Your task to perform on an android device: uninstall "Google Chat" Image 0: 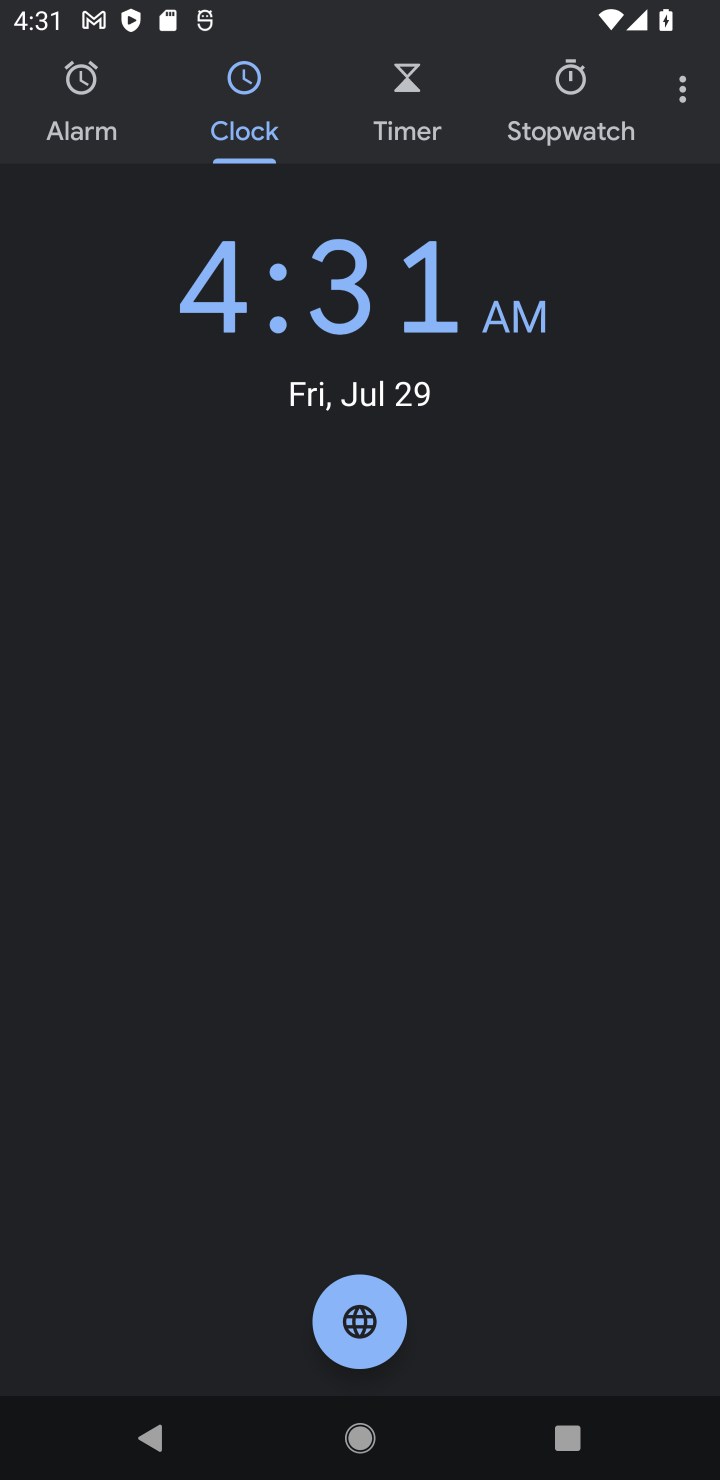
Step 0: press home button
Your task to perform on an android device: uninstall "Google Chat" Image 1: 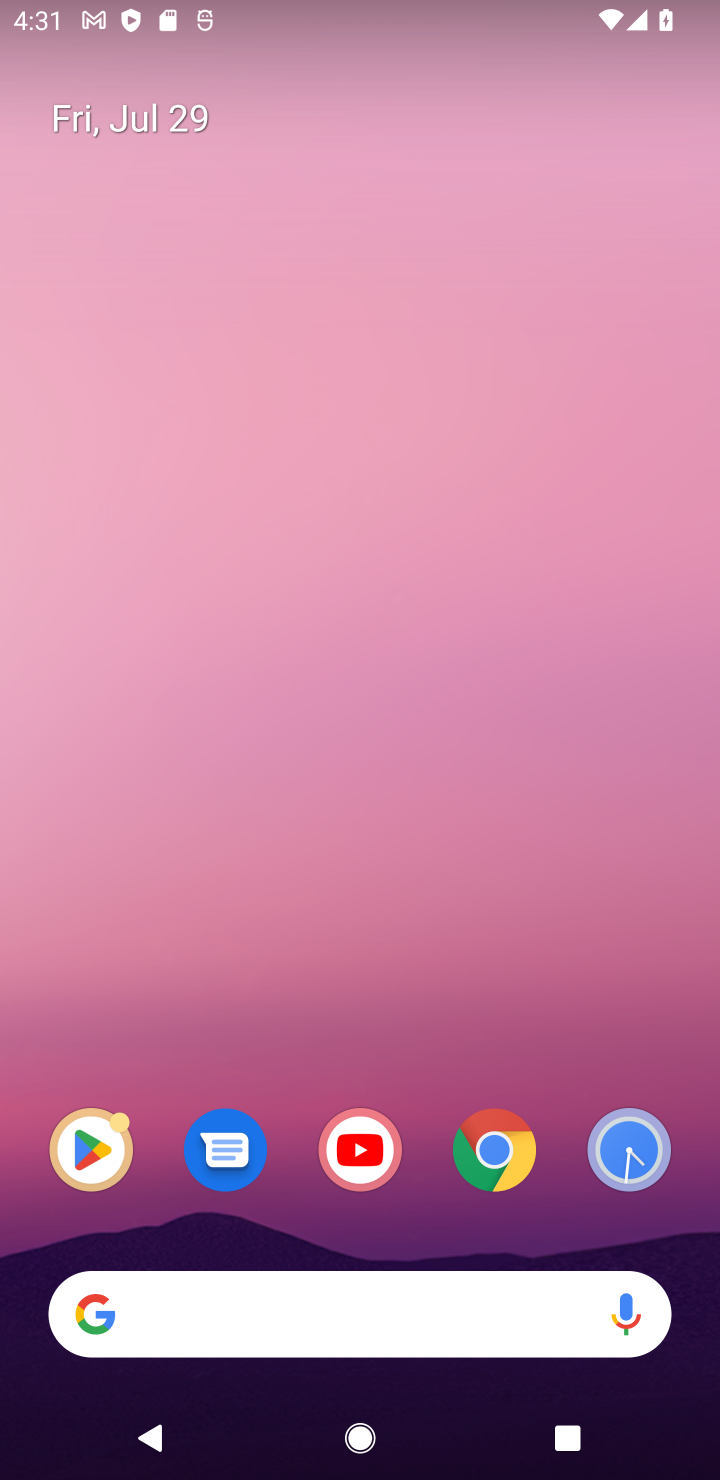
Step 1: drag from (406, 1466) to (406, 534)
Your task to perform on an android device: uninstall "Google Chat" Image 2: 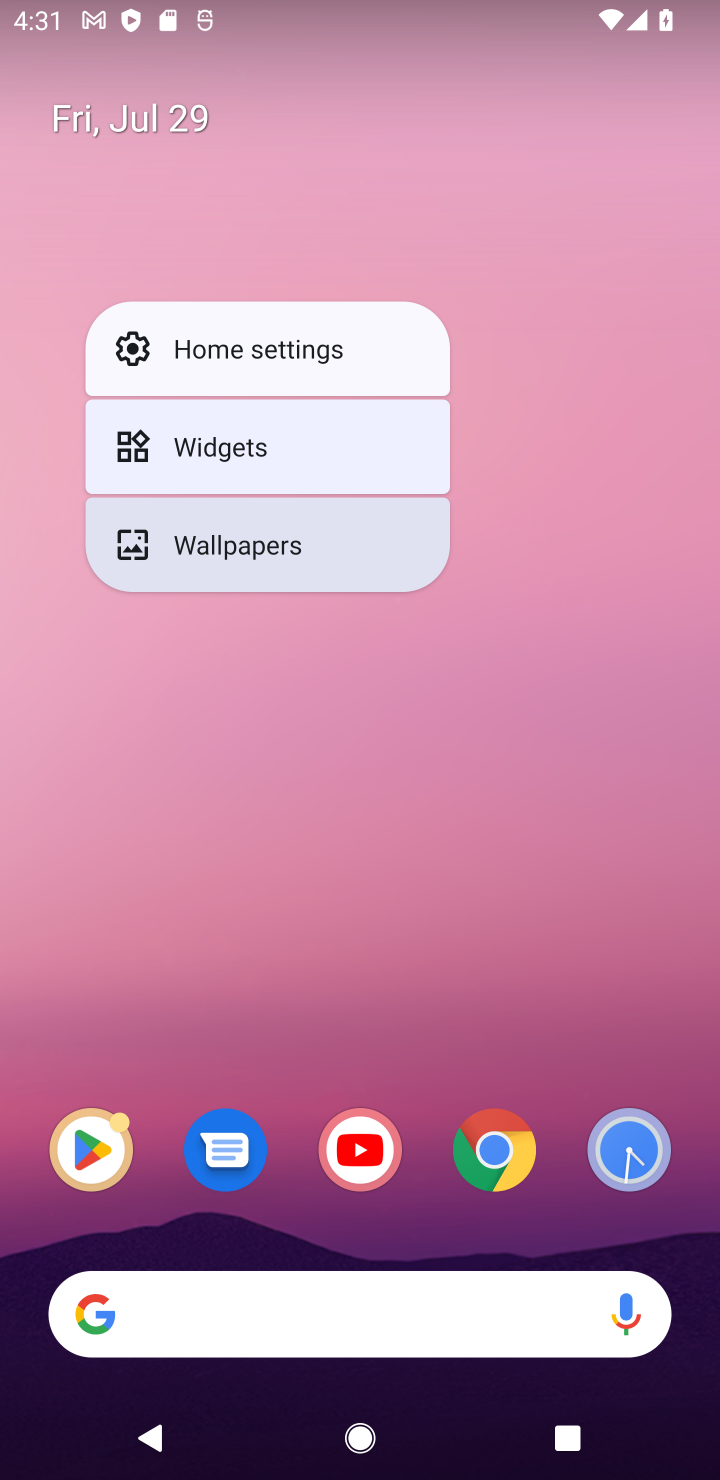
Step 2: click (364, 780)
Your task to perform on an android device: uninstall "Google Chat" Image 3: 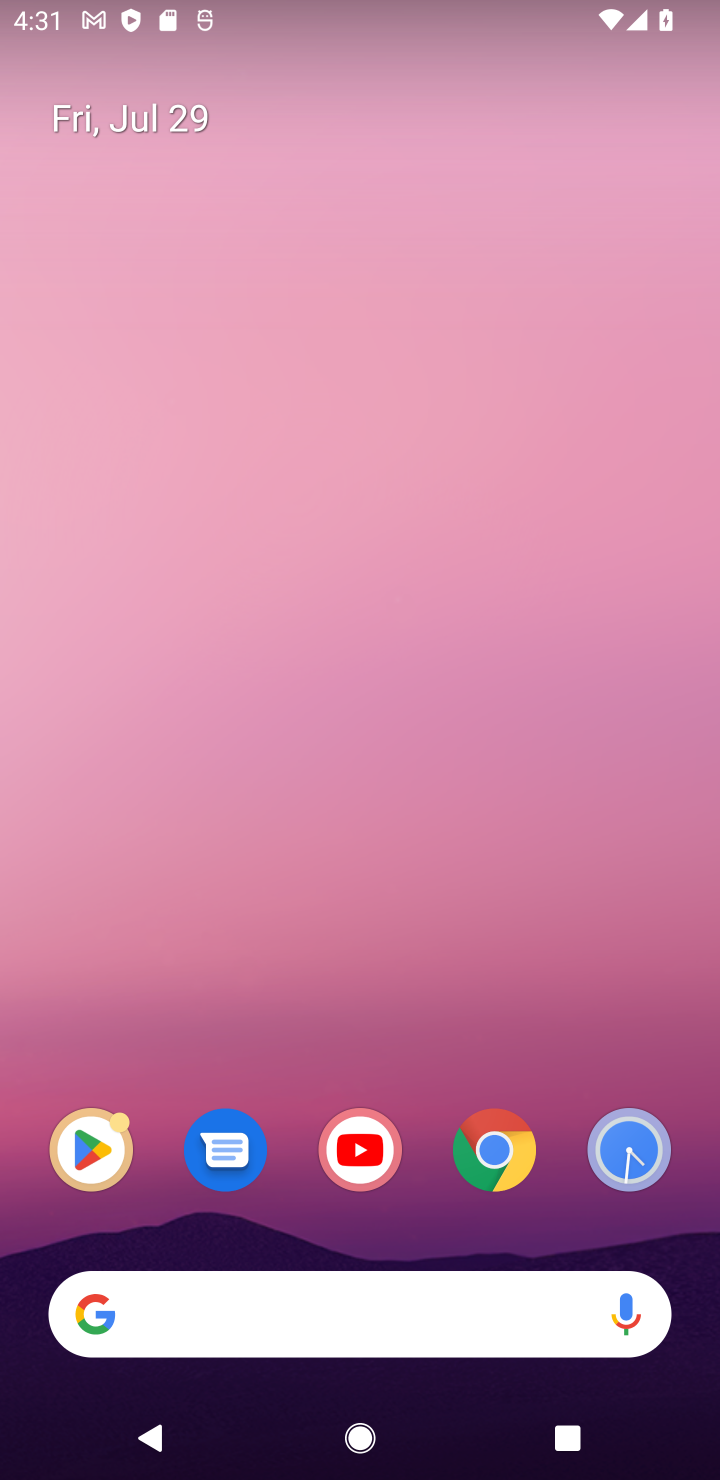
Step 3: drag from (449, 1275) to (449, 82)
Your task to perform on an android device: uninstall "Google Chat" Image 4: 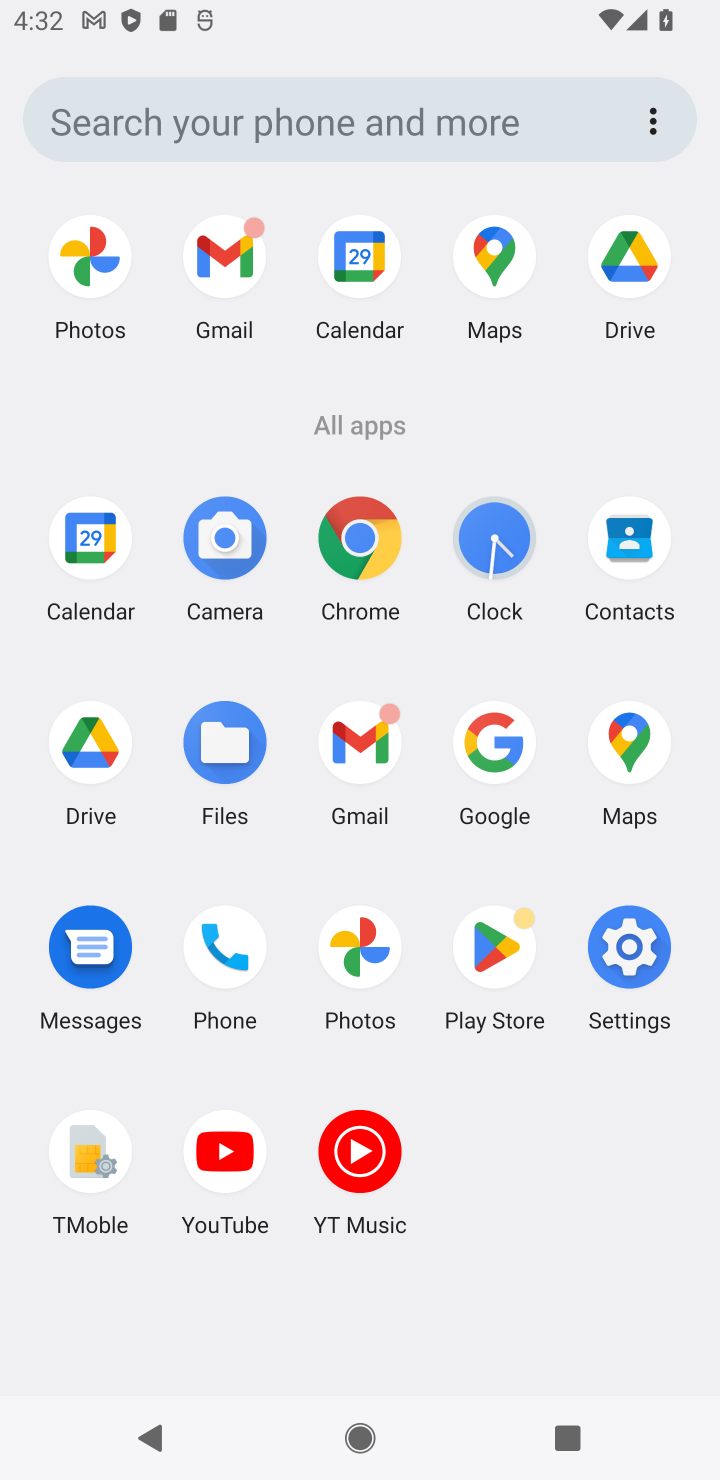
Step 4: click (497, 943)
Your task to perform on an android device: uninstall "Google Chat" Image 5: 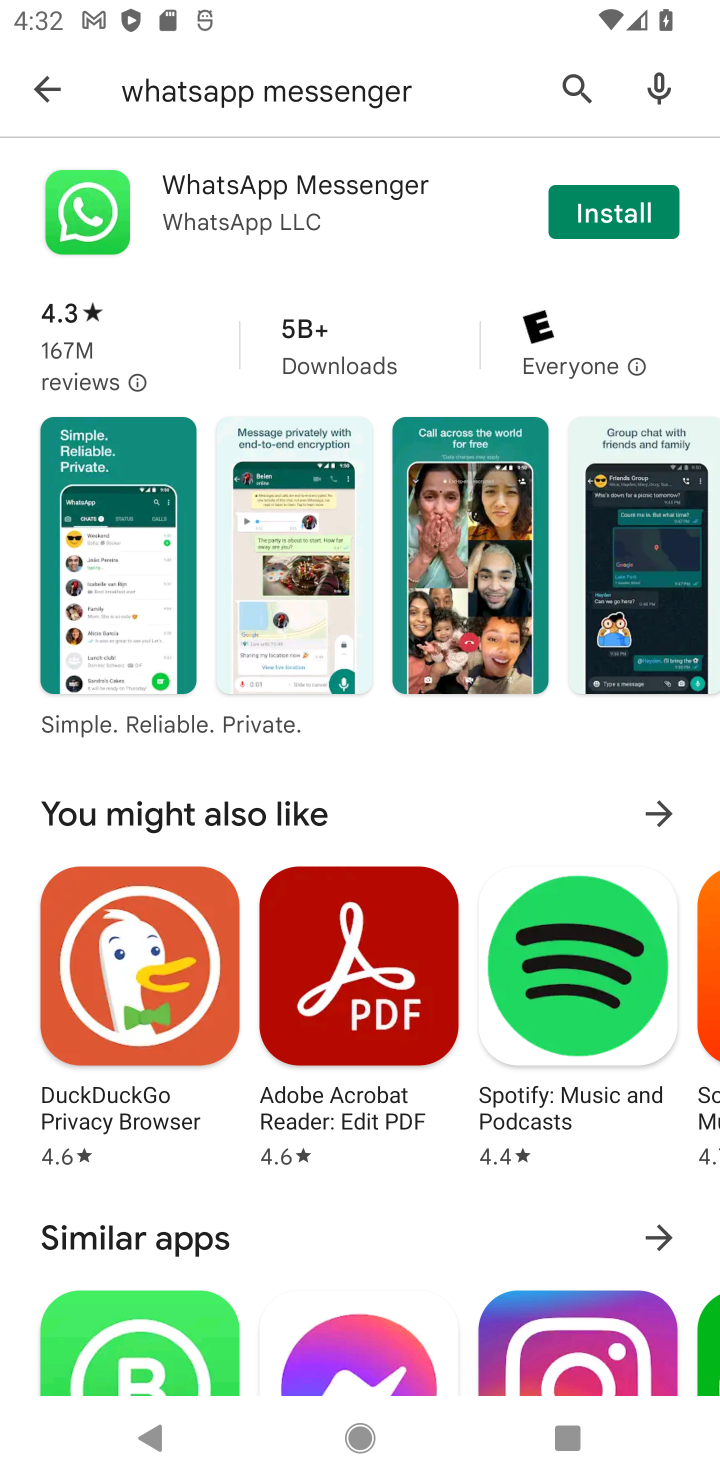
Step 5: click (573, 73)
Your task to perform on an android device: uninstall "Google Chat" Image 6: 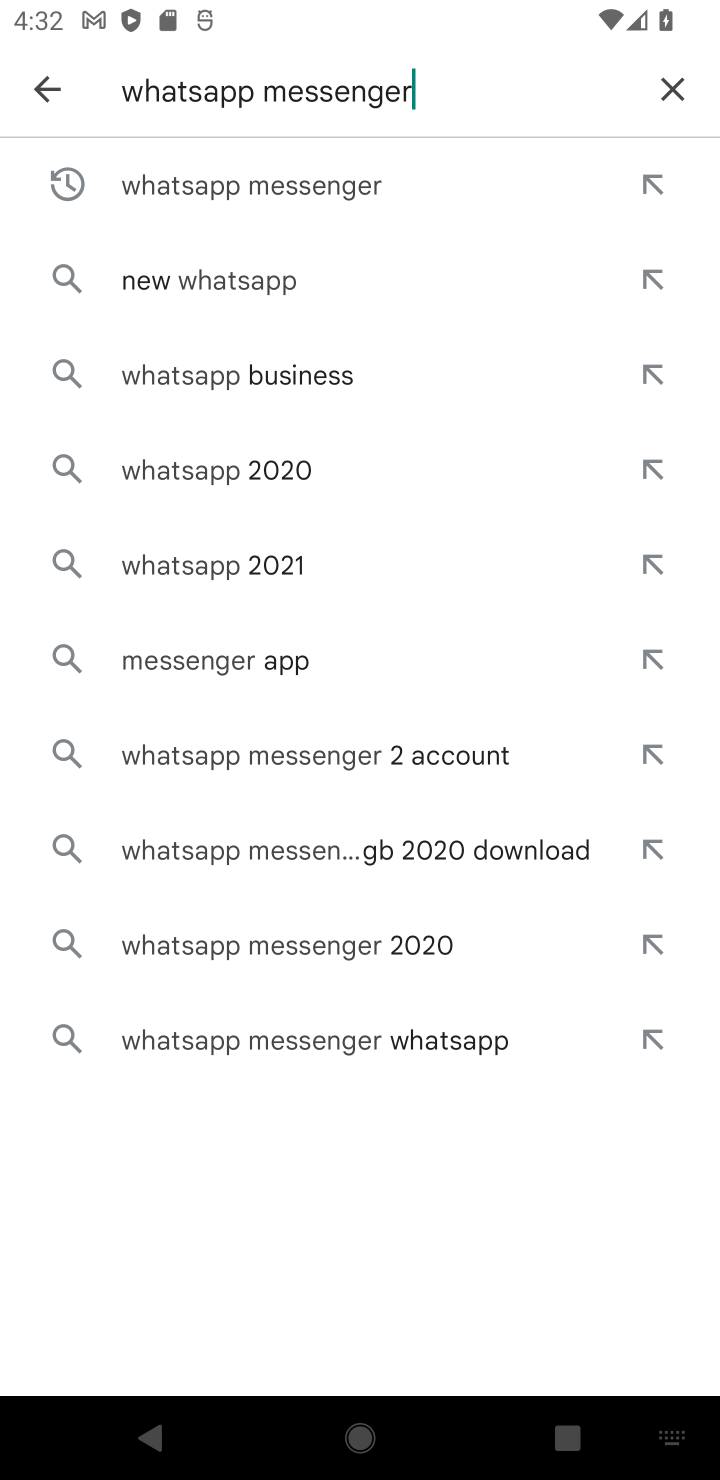
Step 6: click (660, 90)
Your task to perform on an android device: uninstall "Google Chat" Image 7: 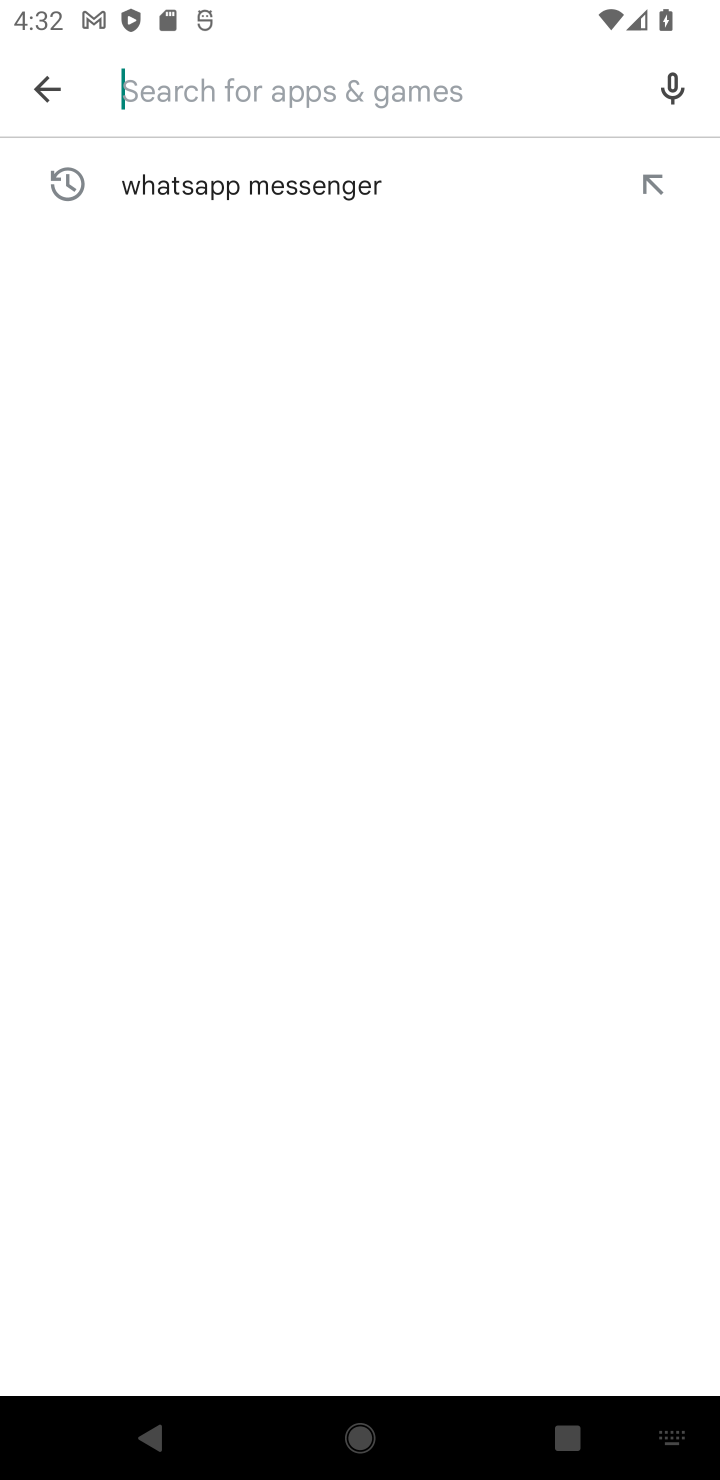
Step 7: type "Google Chat"
Your task to perform on an android device: uninstall "Google Chat" Image 8: 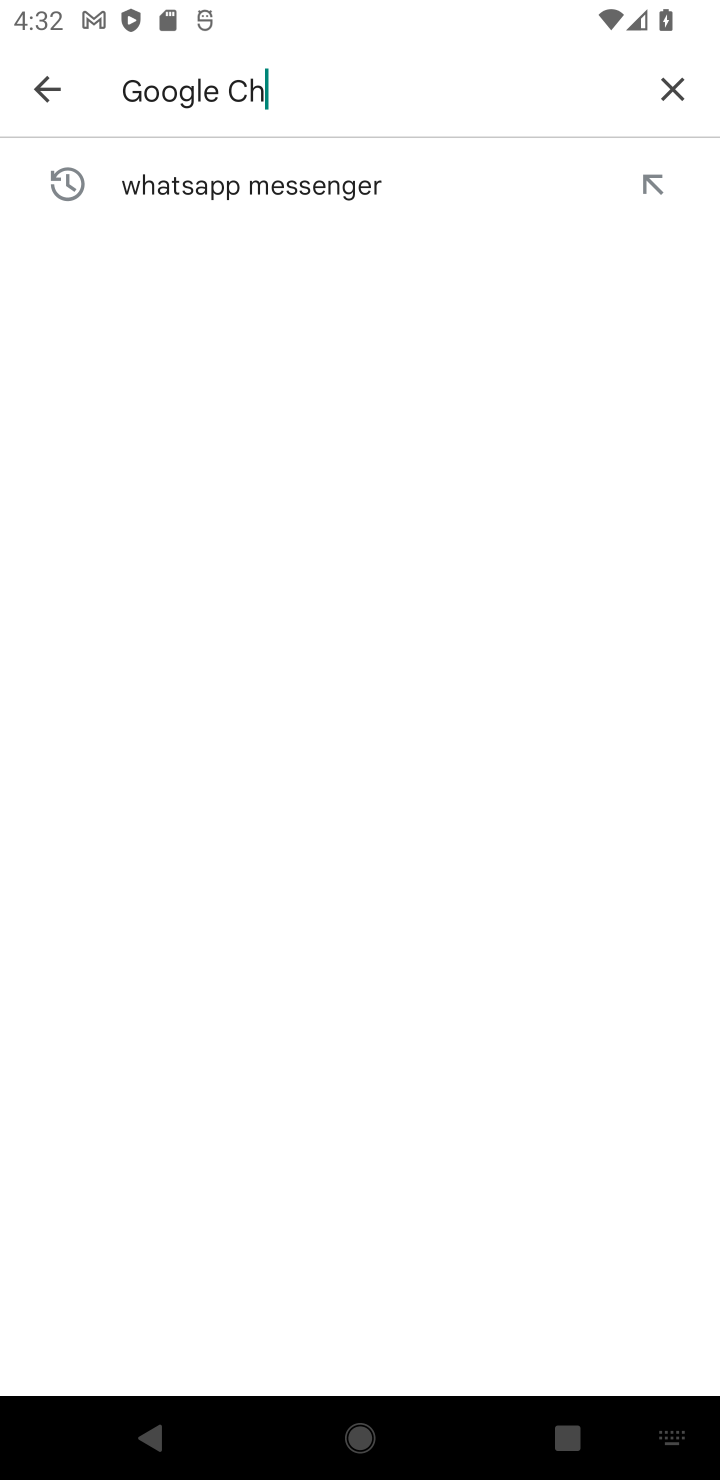
Step 8: type ""
Your task to perform on an android device: uninstall "Google Chat" Image 9: 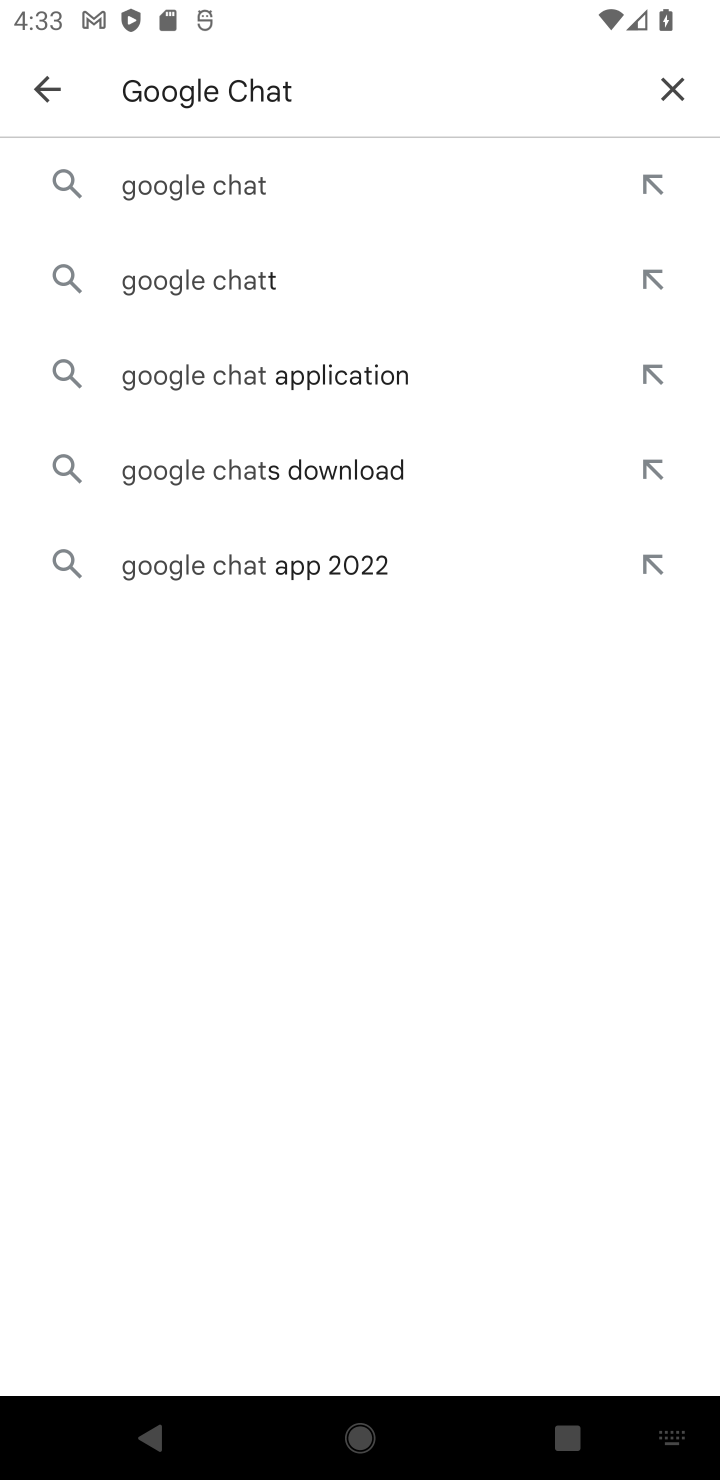
Step 9: click (181, 180)
Your task to perform on an android device: uninstall "Google Chat" Image 10: 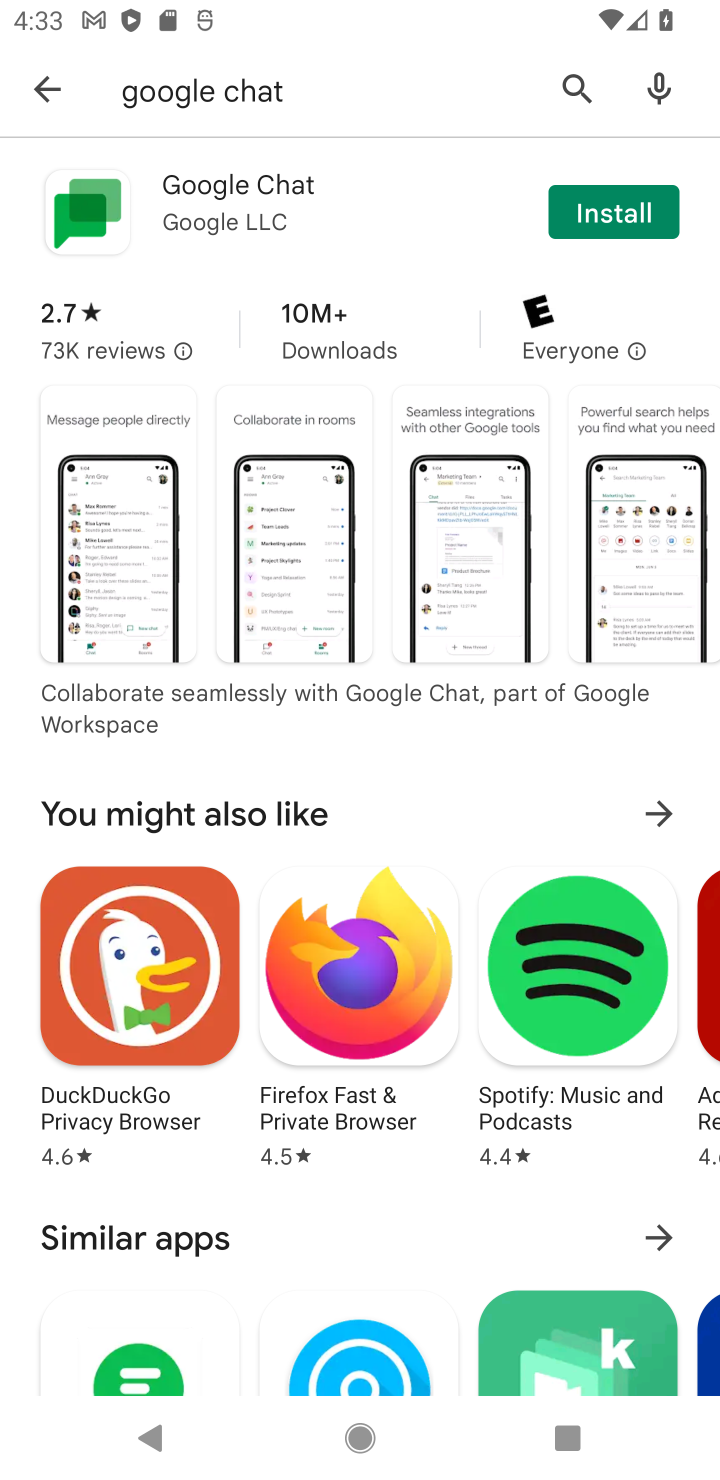
Step 10: task complete